Your task to perform on an android device: open sync settings in chrome Image 0: 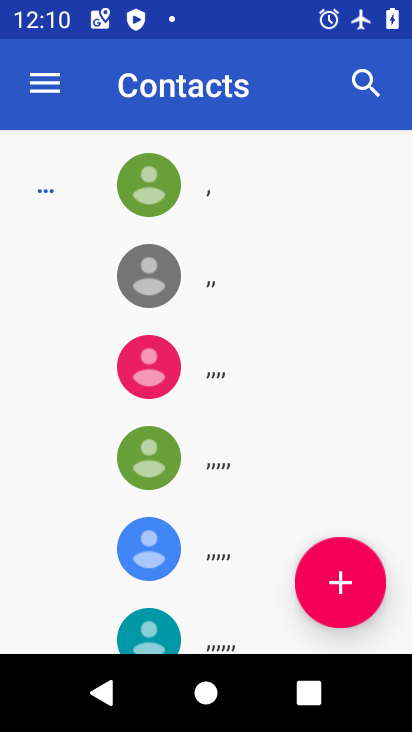
Step 0: press home button
Your task to perform on an android device: open sync settings in chrome Image 1: 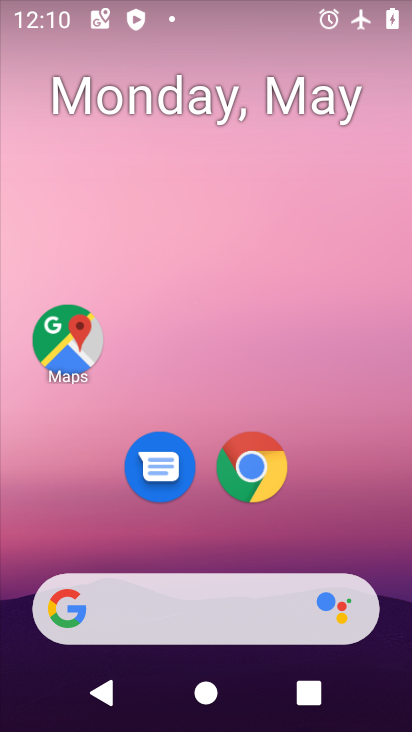
Step 1: click (261, 468)
Your task to perform on an android device: open sync settings in chrome Image 2: 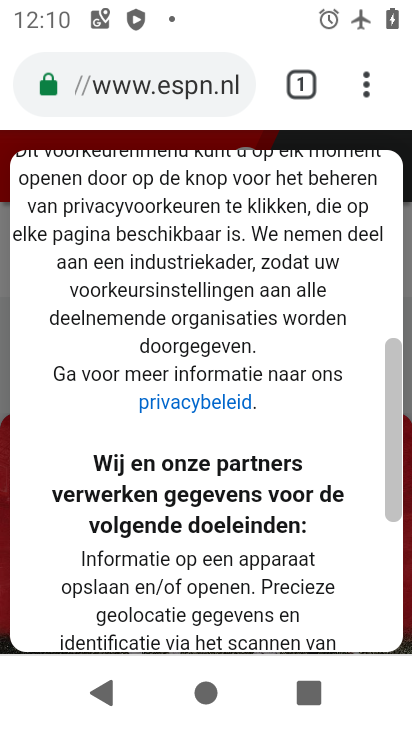
Step 2: click (363, 93)
Your task to perform on an android device: open sync settings in chrome Image 3: 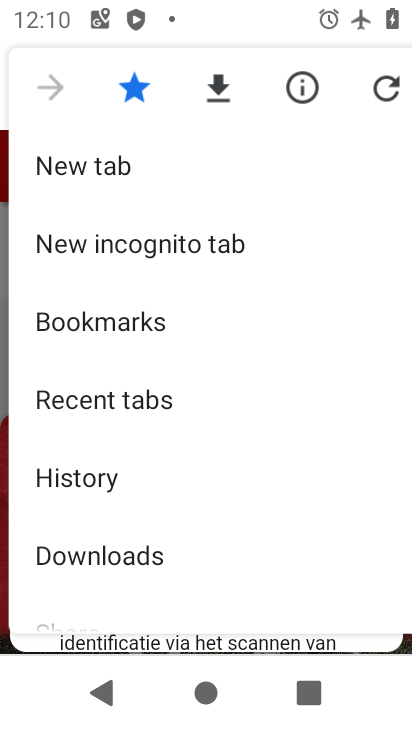
Step 3: drag from (212, 535) to (188, 242)
Your task to perform on an android device: open sync settings in chrome Image 4: 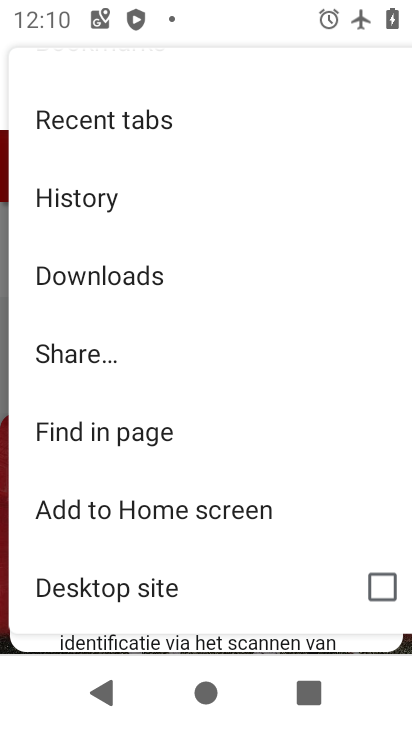
Step 4: drag from (185, 530) to (177, 239)
Your task to perform on an android device: open sync settings in chrome Image 5: 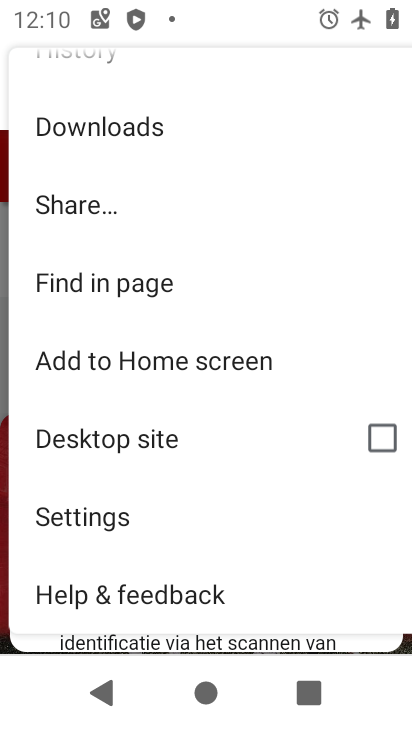
Step 5: click (88, 520)
Your task to perform on an android device: open sync settings in chrome Image 6: 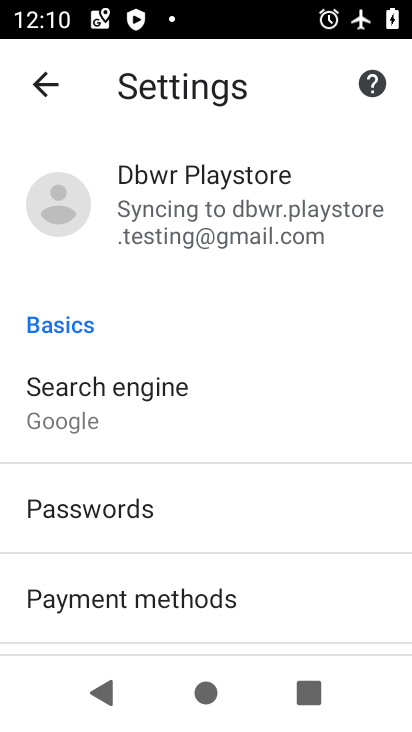
Step 6: click (217, 223)
Your task to perform on an android device: open sync settings in chrome Image 7: 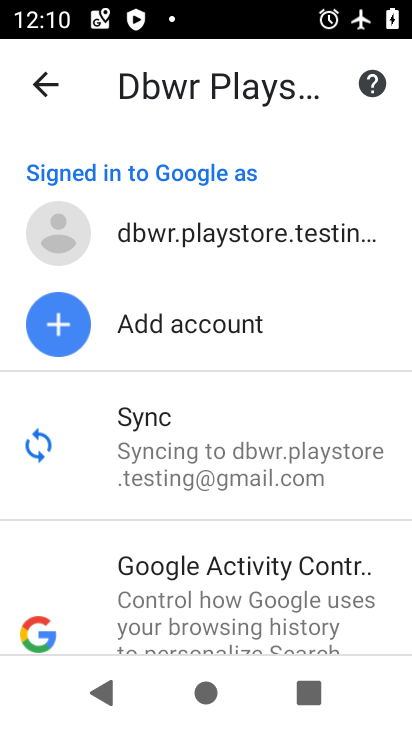
Step 7: click (148, 462)
Your task to perform on an android device: open sync settings in chrome Image 8: 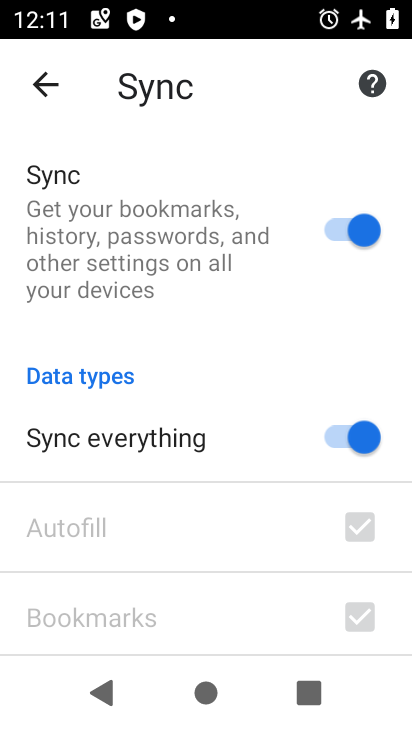
Step 8: task complete